Your task to perform on an android device: Check my gmail inbox Image 0: 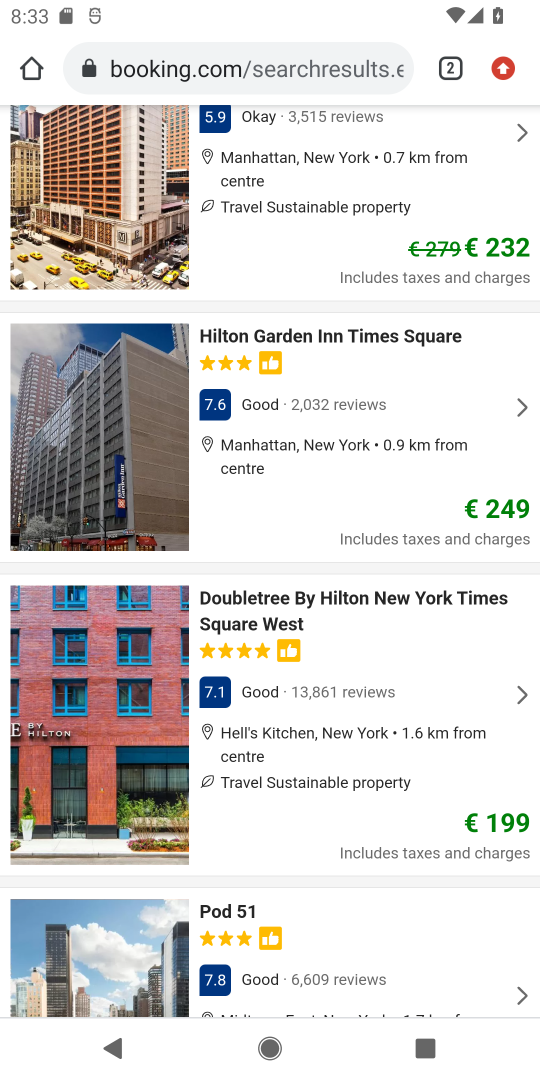
Step 0: press home button
Your task to perform on an android device: Check my gmail inbox Image 1: 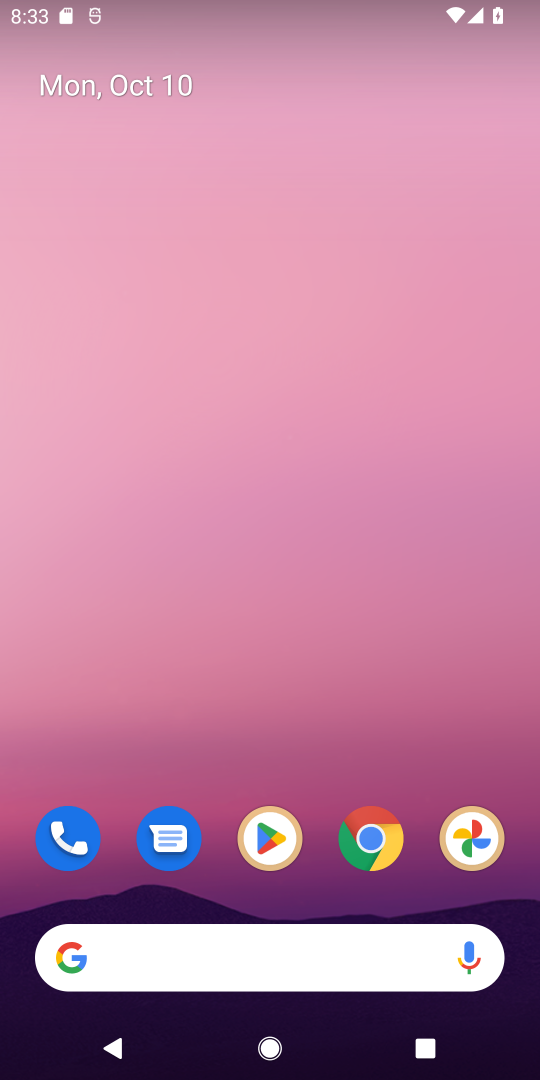
Step 1: drag from (411, 897) to (401, 221)
Your task to perform on an android device: Check my gmail inbox Image 2: 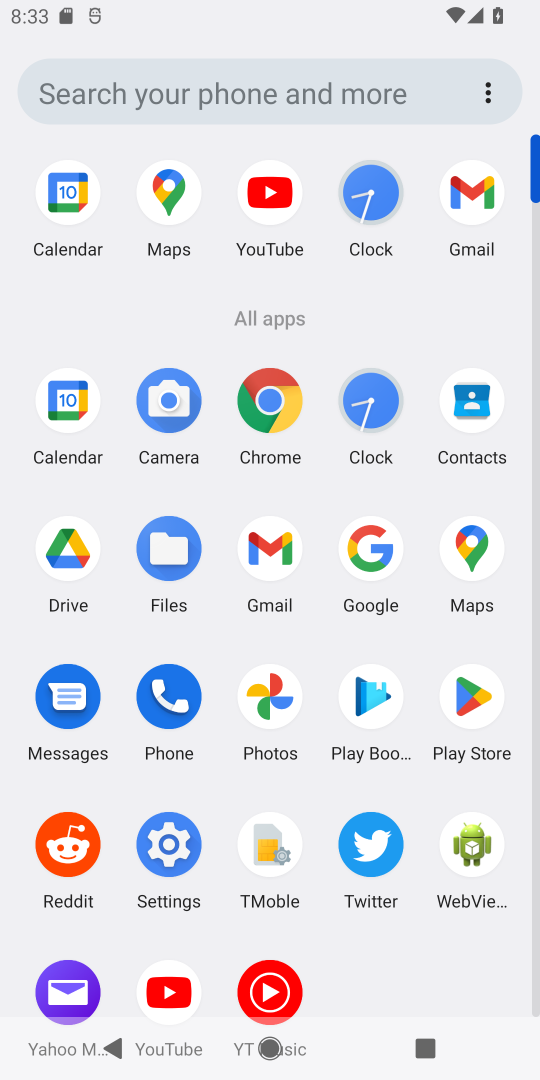
Step 2: click (266, 544)
Your task to perform on an android device: Check my gmail inbox Image 3: 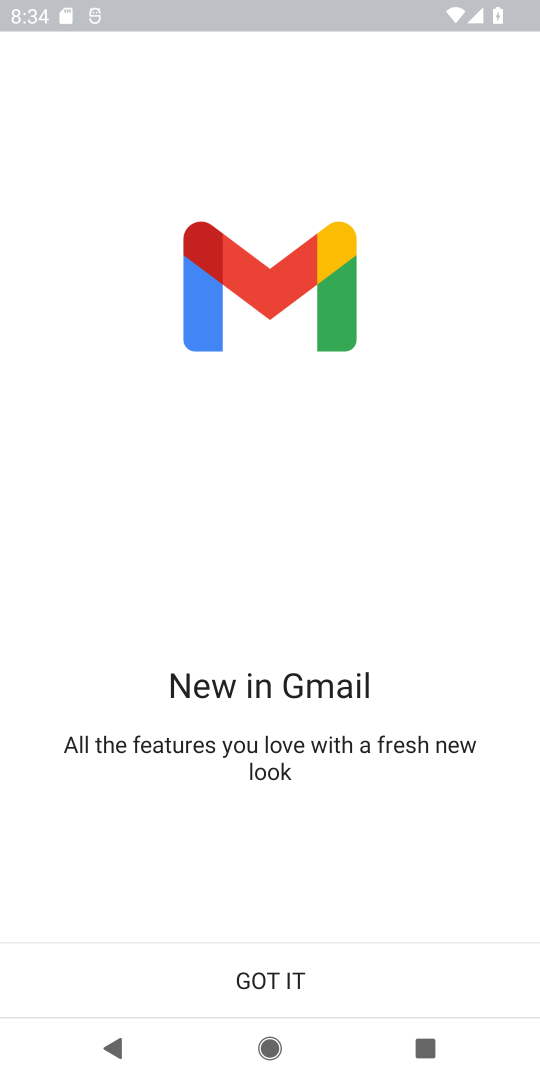
Step 3: click (272, 972)
Your task to perform on an android device: Check my gmail inbox Image 4: 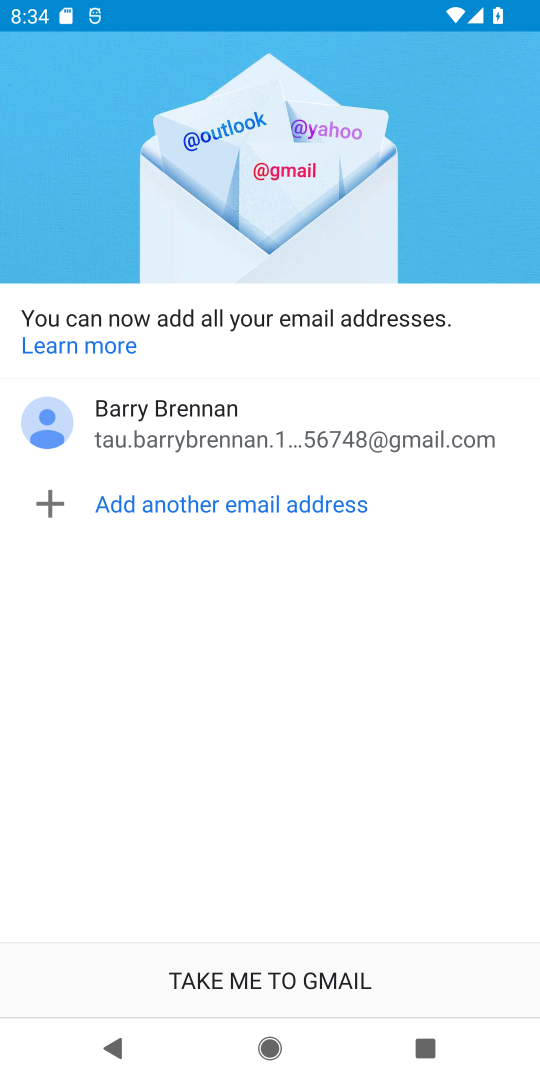
Step 4: click (264, 986)
Your task to perform on an android device: Check my gmail inbox Image 5: 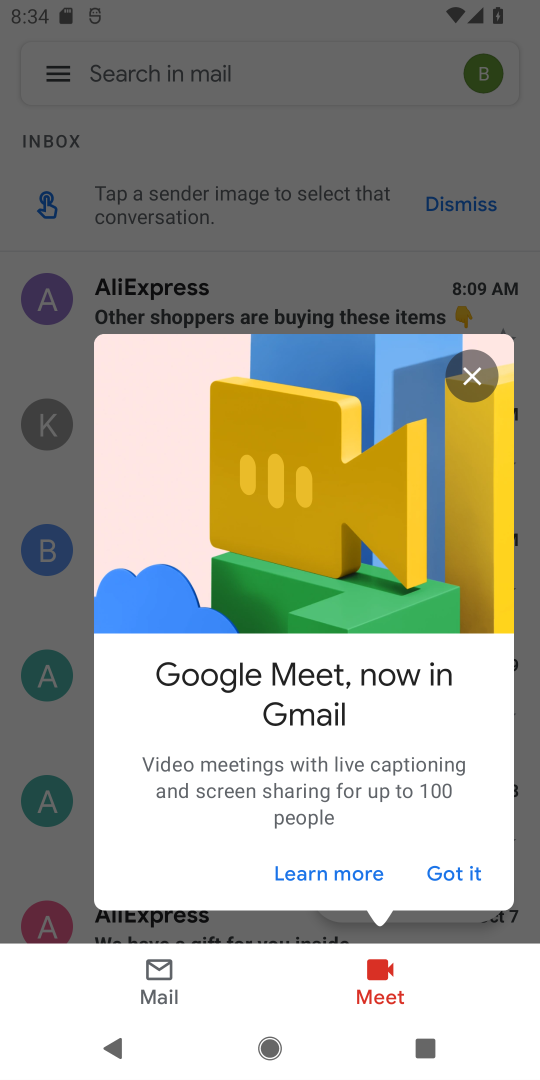
Step 5: click (454, 875)
Your task to perform on an android device: Check my gmail inbox Image 6: 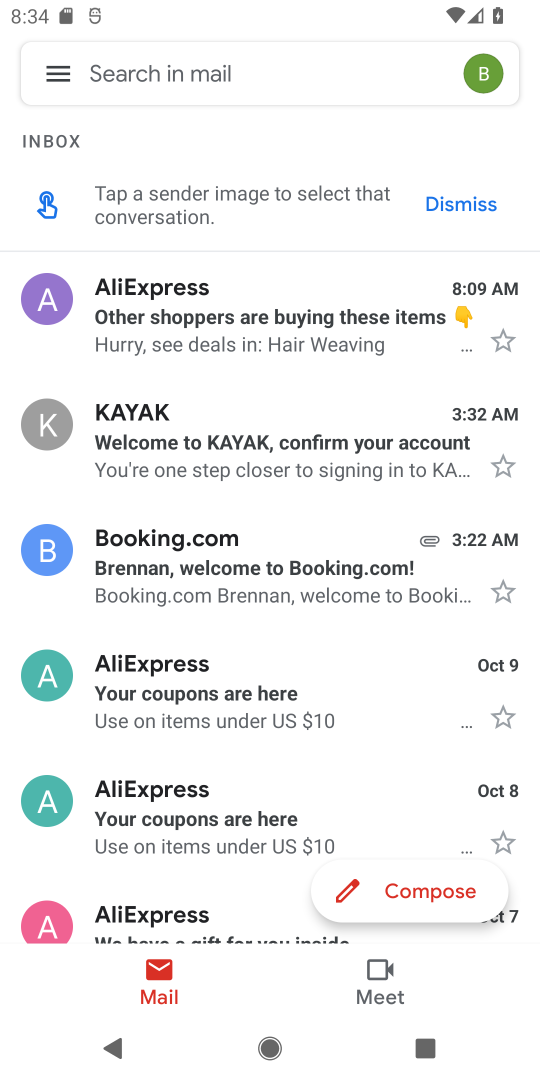
Step 6: task complete